Your task to perform on an android device: Check the weather Image 0: 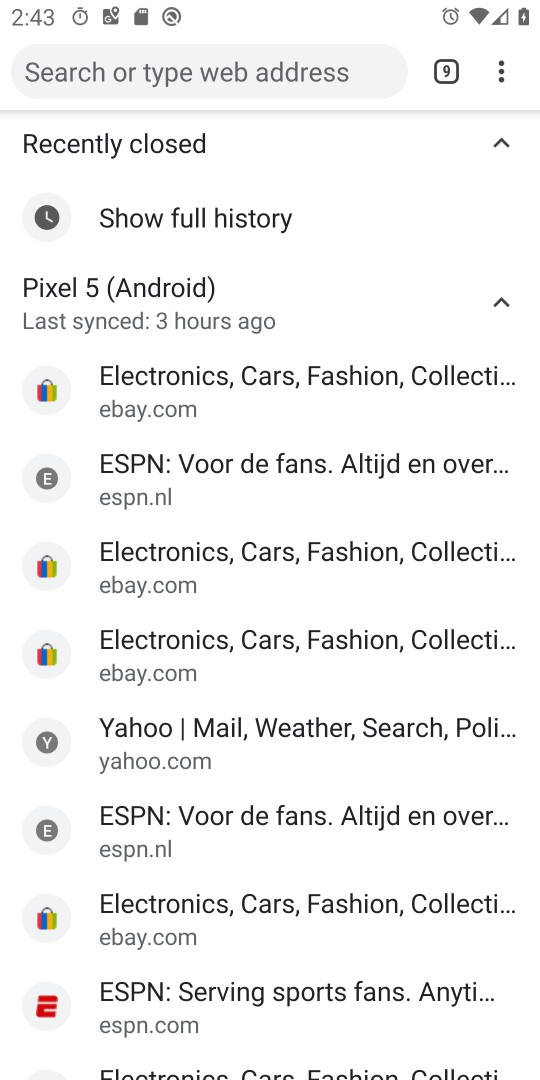
Step 0: press home button
Your task to perform on an android device: Check the weather Image 1: 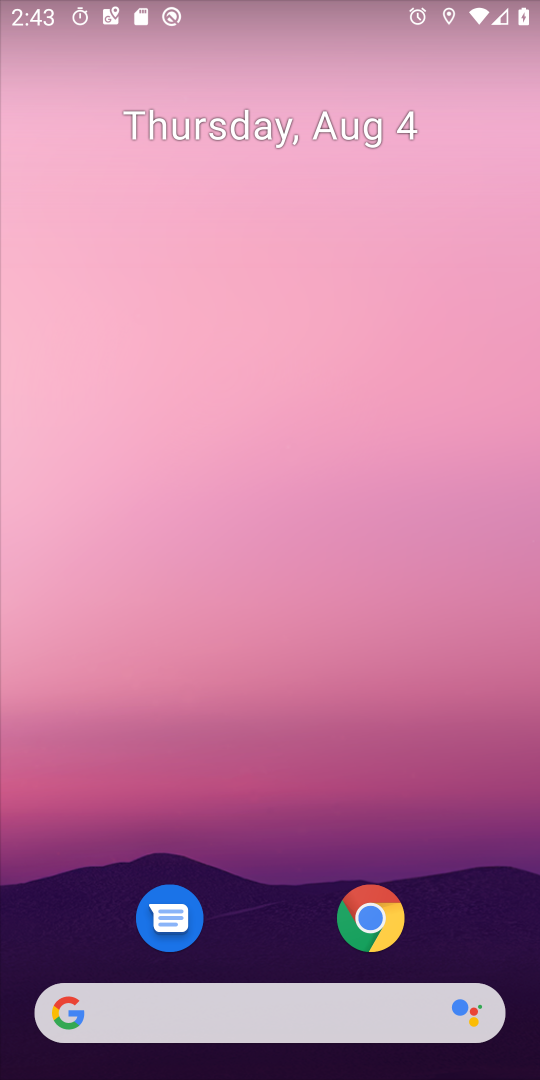
Step 1: drag from (257, 911) to (272, 130)
Your task to perform on an android device: Check the weather Image 2: 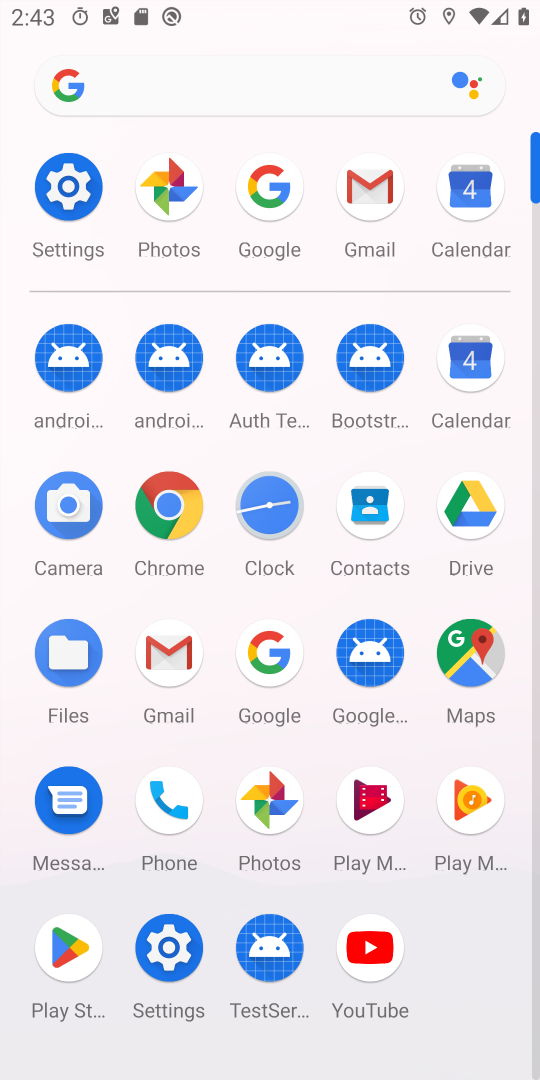
Step 2: click (253, 649)
Your task to perform on an android device: Check the weather Image 3: 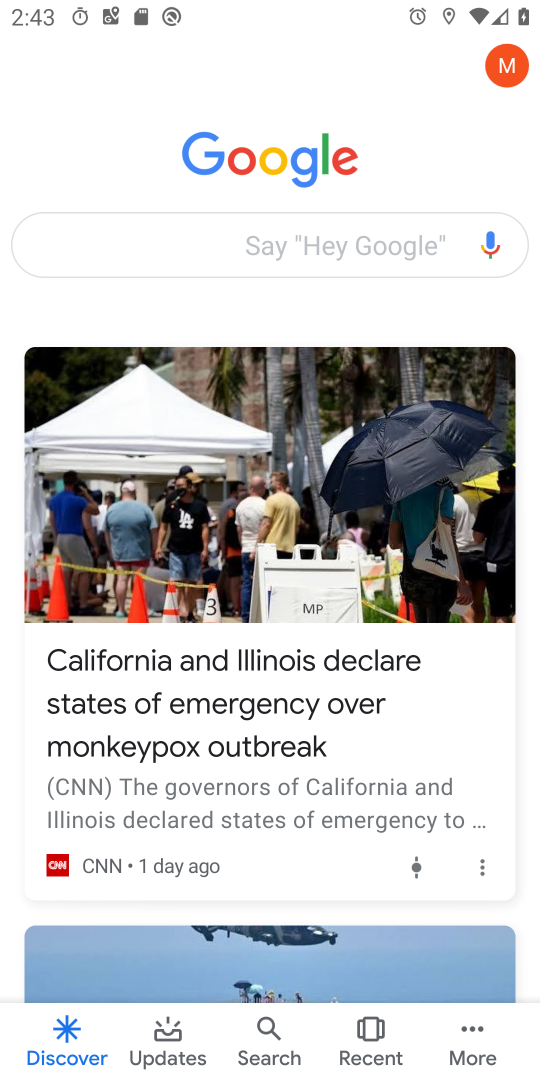
Step 3: click (177, 232)
Your task to perform on an android device: Check the weather Image 4: 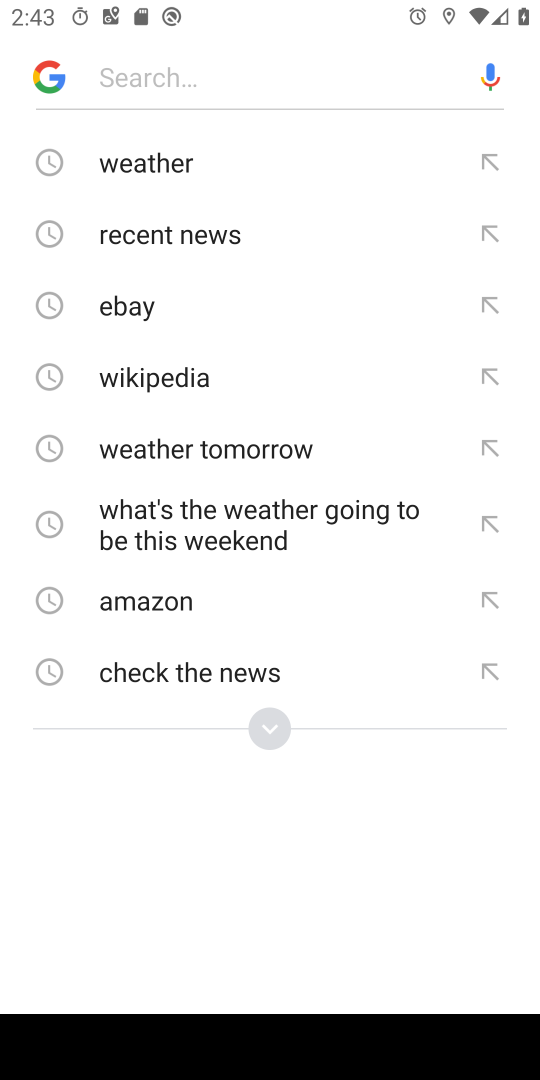
Step 4: click (169, 179)
Your task to perform on an android device: Check the weather Image 5: 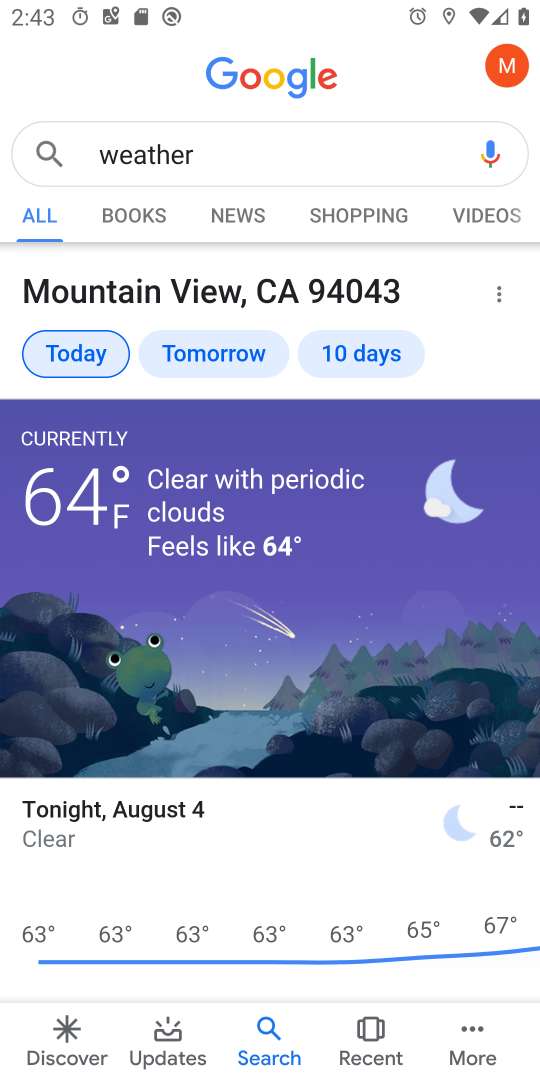
Step 5: task complete